Your task to perform on an android device: change the clock display to digital Image 0: 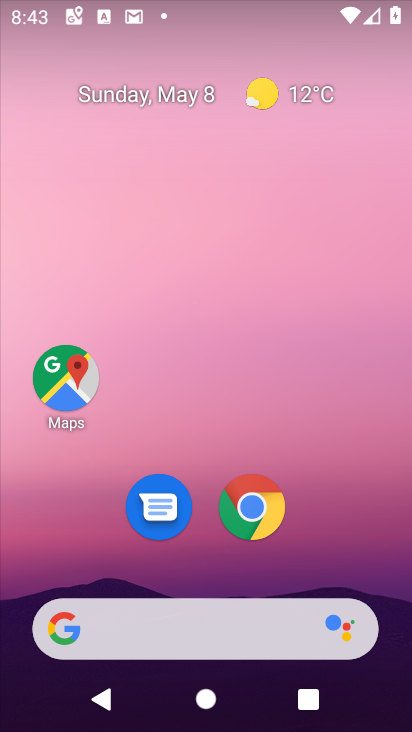
Step 0: drag from (273, 694) to (190, 7)
Your task to perform on an android device: change the clock display to digital Image 1: 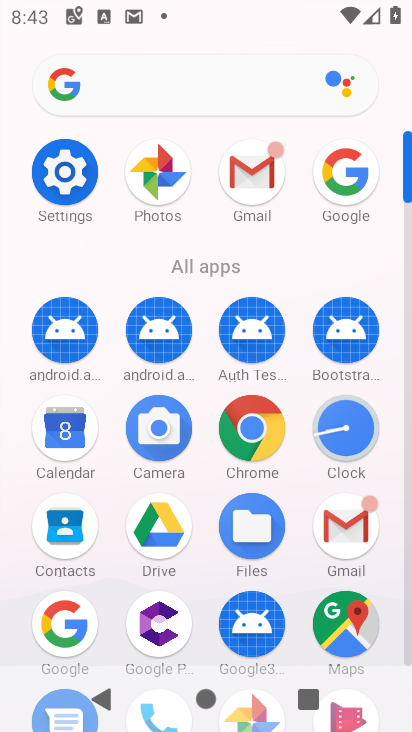
Step 1: click (348, 430)
Your task to perform on an android device: change the clock display to digital Image 2: 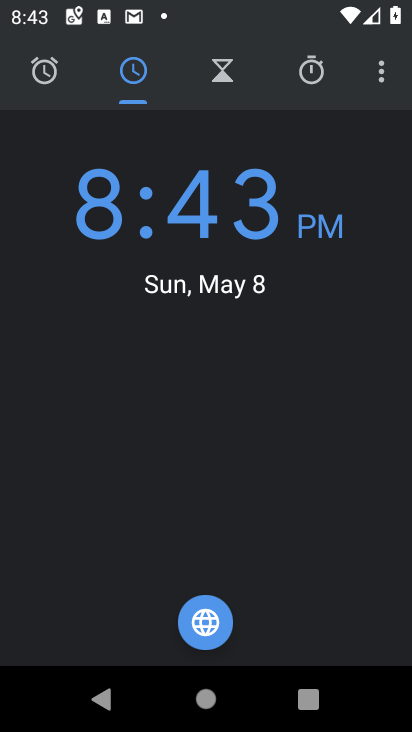
Step 2: click (384, 73)
Your task to perform on an android device: change the clock display to digital Image 3: 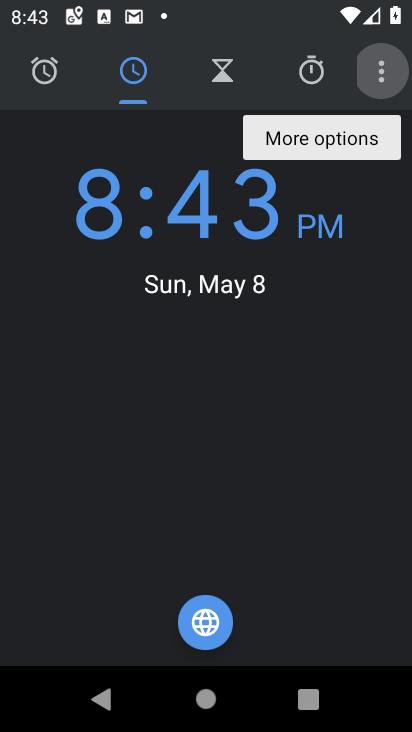
Step 3: click (384, 73)
Your task to perform on an android device: change the clock display to digital Image 4: 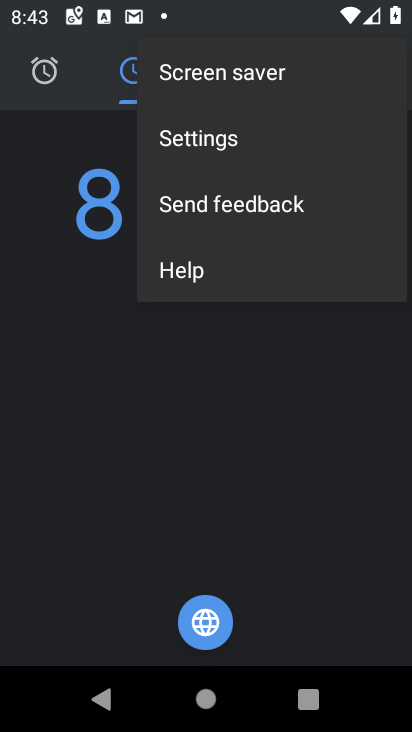
Step 4: click (230, 134)
Your task to perform on an android device: change the clock display to digital Image 5: 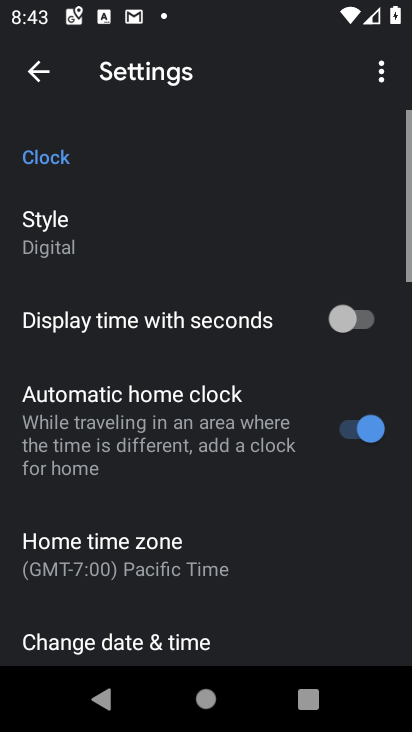
Step 5: click (51, 237)
Your task to perform on an android device: change the clock display to digital Image 6: 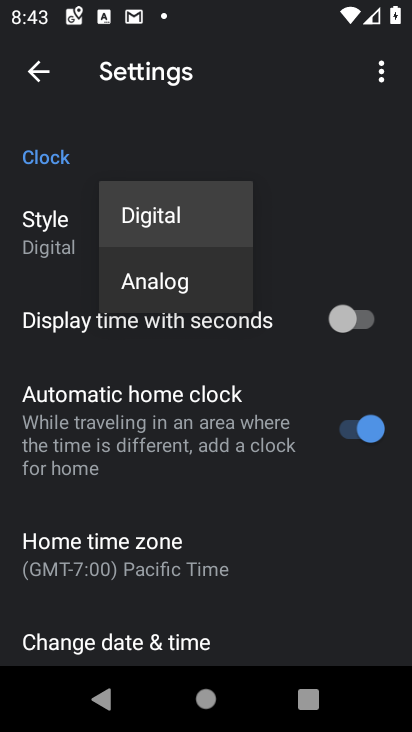
Step 6: task complete